Your task to perform on an android device: Go to display settings Image 0: 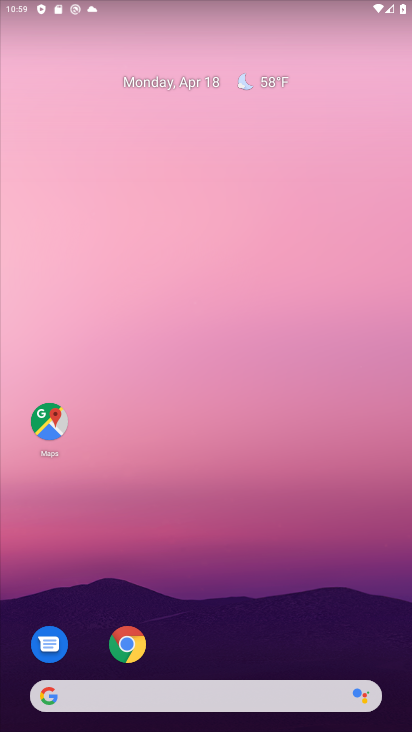
Step 0: drag from (198, 656) to (198, 103)
Your task to perform on an android device: Go to display settings Image 1: 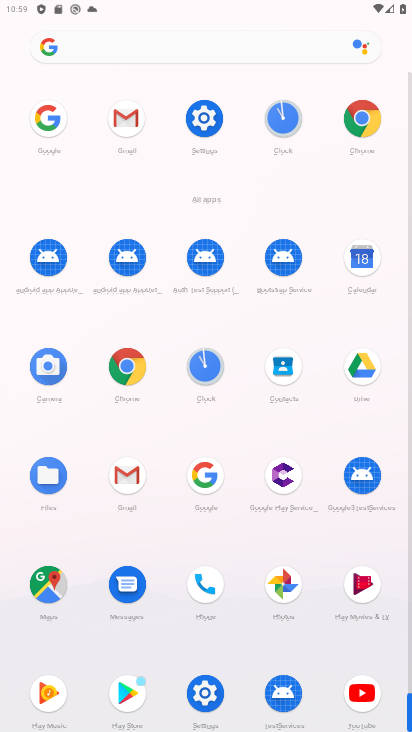
Step 1: click (208, 682)
Your task to perform on an android device: Go to display settings Image 2: 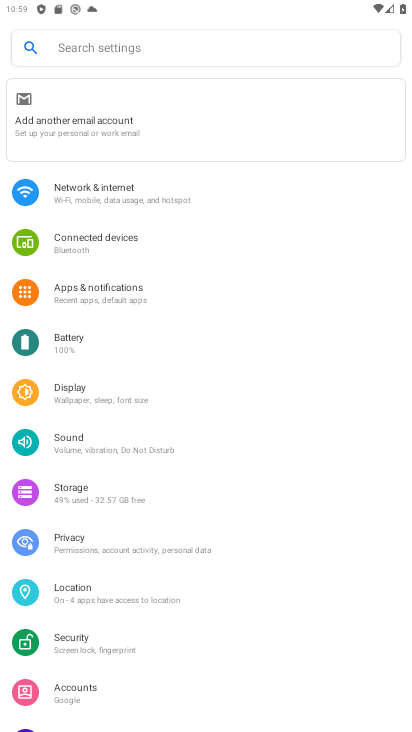
Step 2: click (83, 399)
Your task to perform on an android device: Go to display settings Image 3: 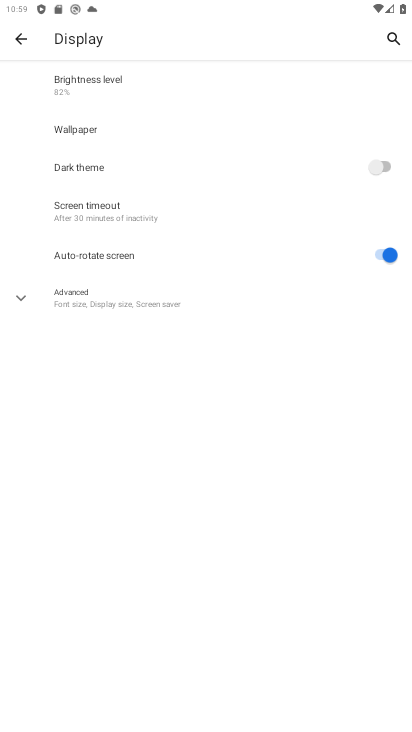
Step 3: task complete